Your task to perform on an android device: Show me recent news Image 0: 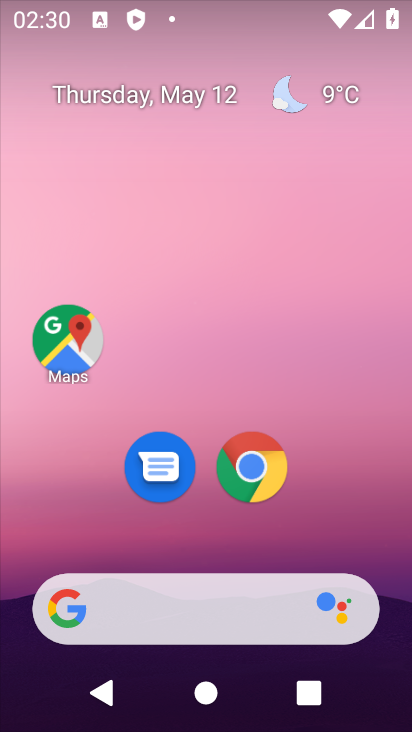
Step 0: drag from (337, 528) to (356, 210)
Your task to perform on an android device: Show me recent news Image 1: 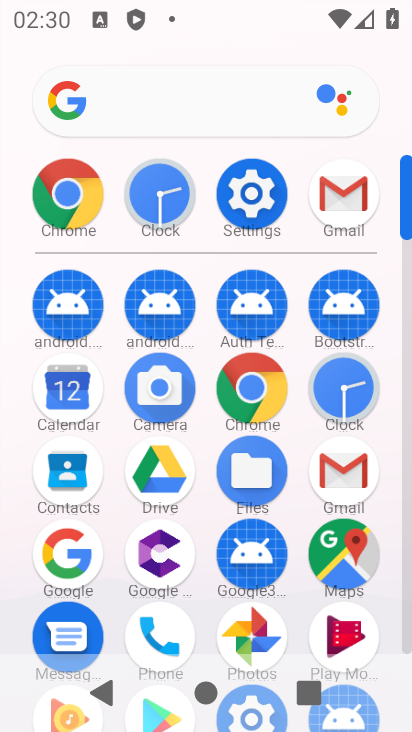
Step 1: click (71, 189)
Your task to perform on an android device: Show me recent news Image 2: 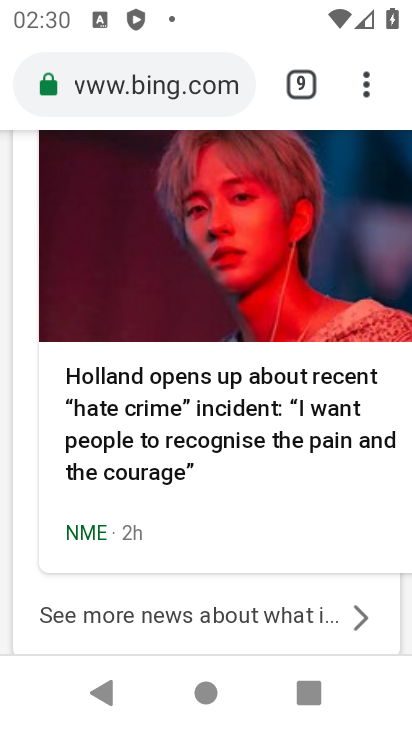
Step 2: drag from (236, 182) to (239, 587)
Your task to perform on an android device: Show me recent news Image 3: 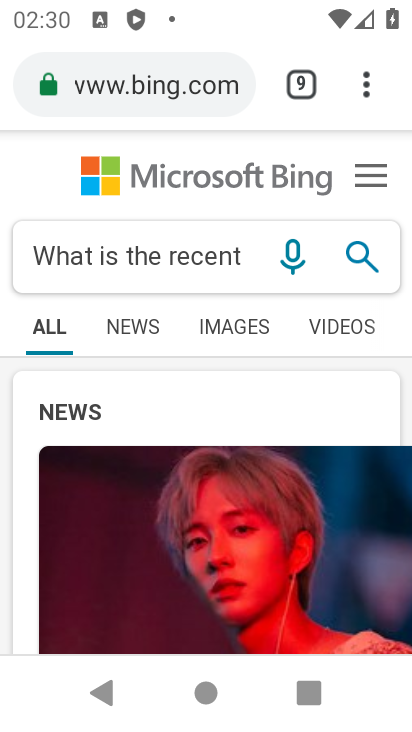
Step 3: click (338, 77)
Your task to perform on an android device: Show me recent news Image 4: 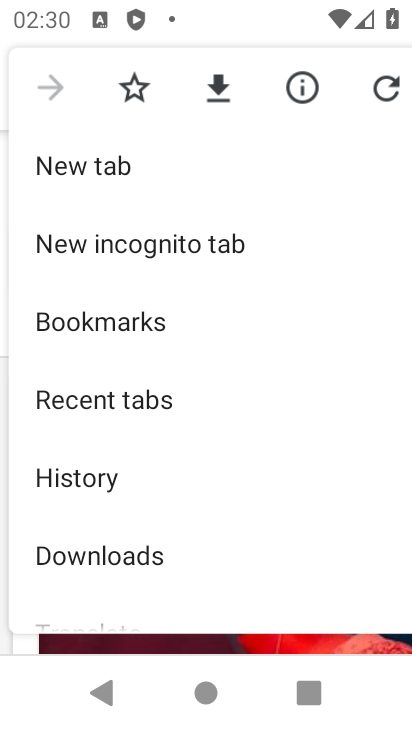
Step 4: click (102, 183)
Your task to perform on an android device: Show me recent news Image 5: 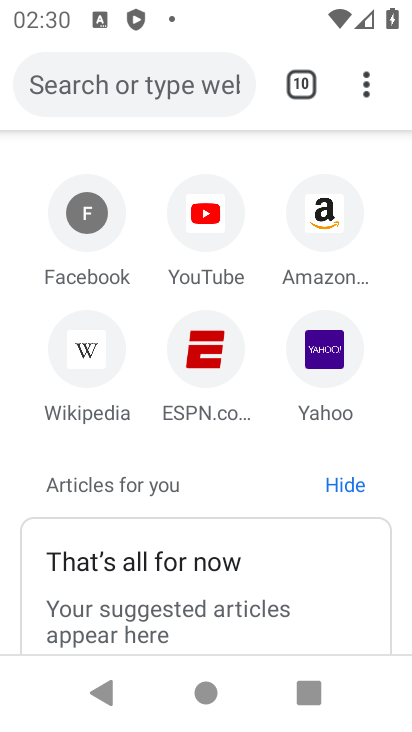
Step 5: click (123, 80)
Your task to perform on an android device: Show me recent news Image 6: 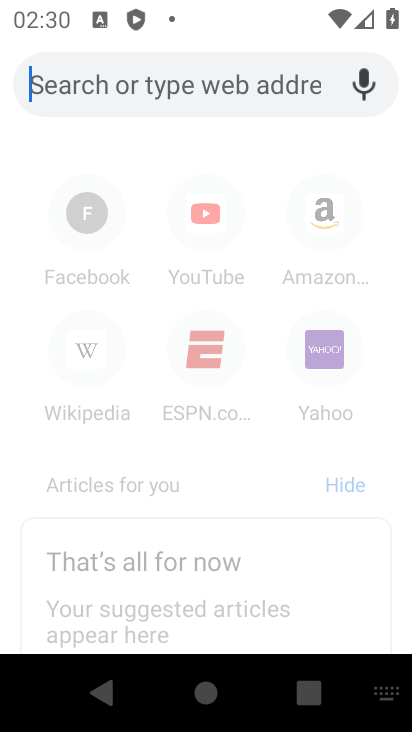
Step 6: type "Show me recent news"
Your task to perform on an android device: Show me recent news Image 7: 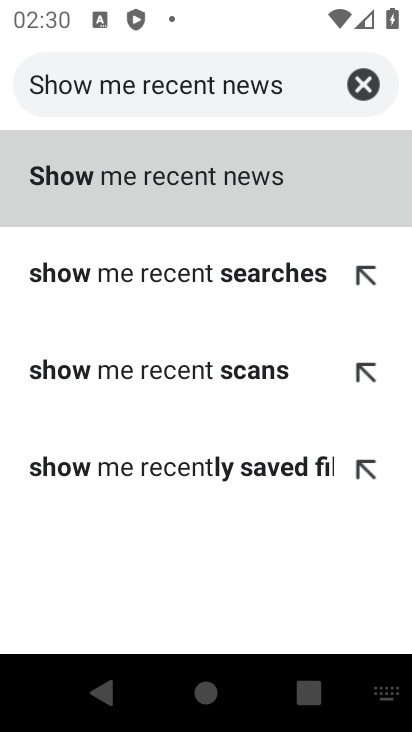
Step 7: click (157, 163)
Your task to perform on an android device: Show me recent news Image 8: 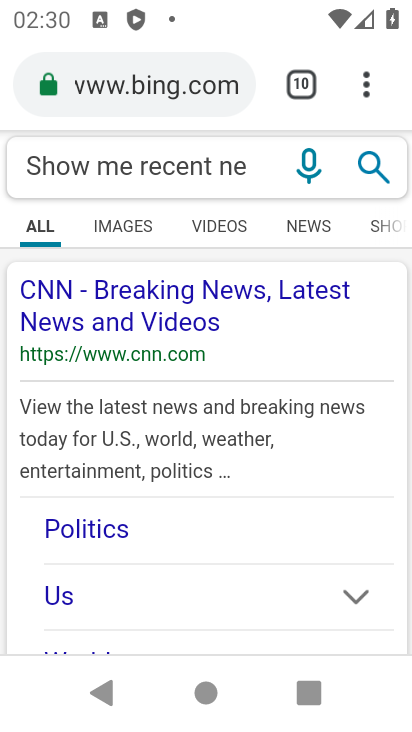
Step 8: task complete